Your task to perform on an android device: open app "LinkedIn" Image 0: 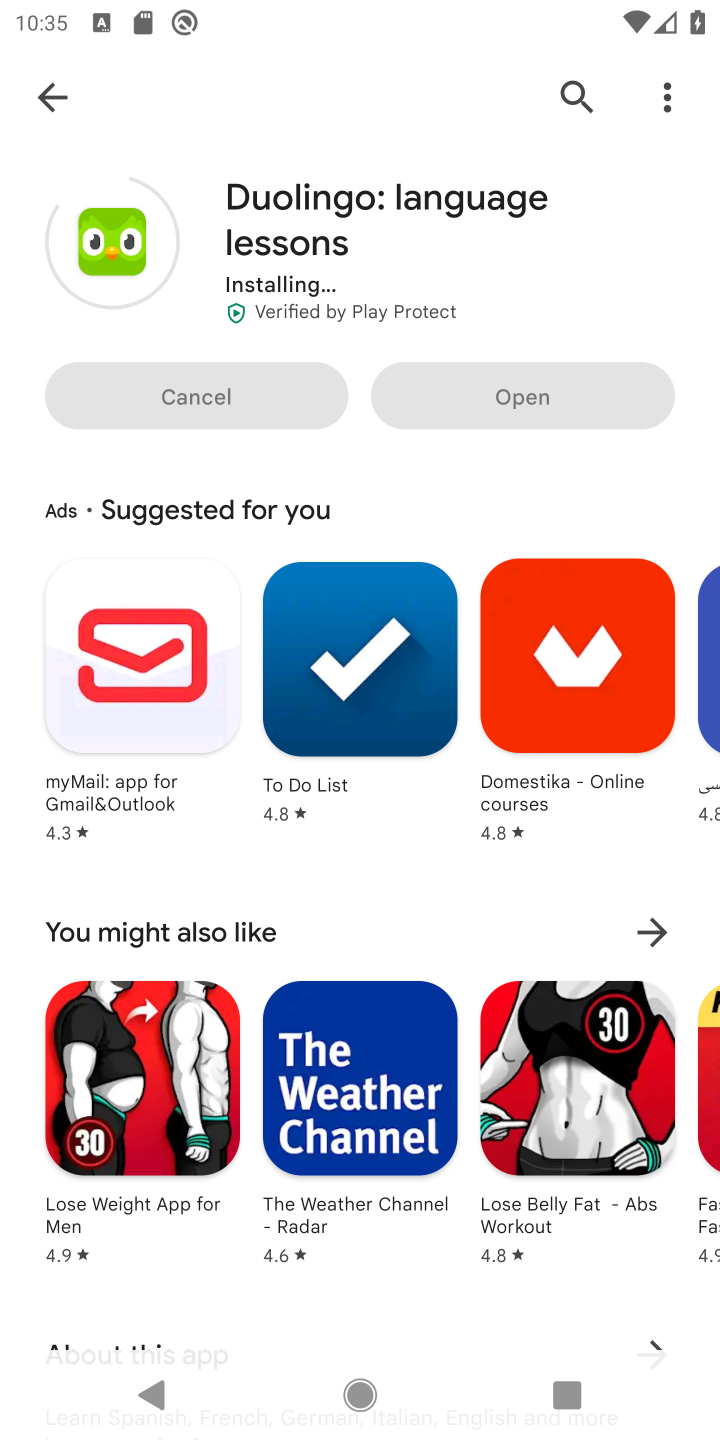
Step 0: press home button
Your task to perform on an android device: open app "LinkedIn" Image 1: 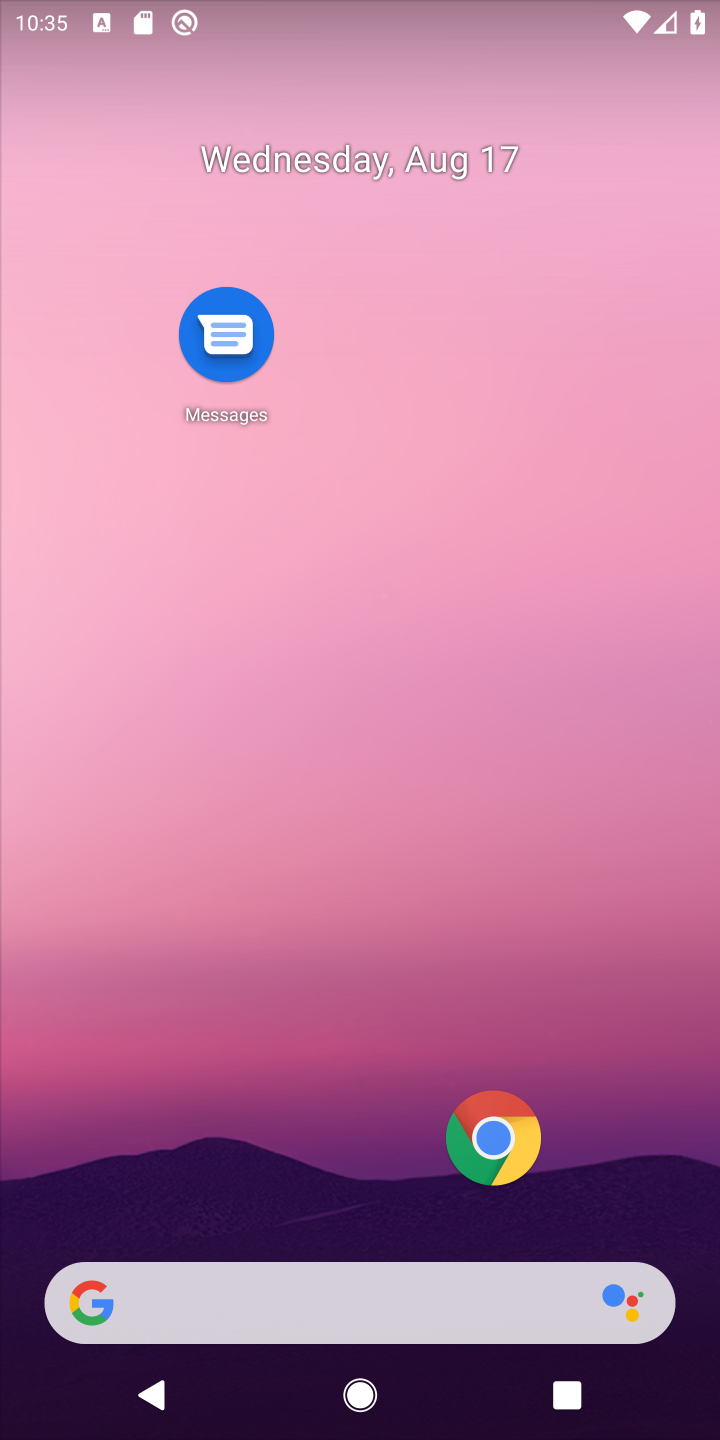
Step 1: drag from (270, 1270) to (155, 396)
Your task to perform on an android device: open app "LinkedIn" Image 2: 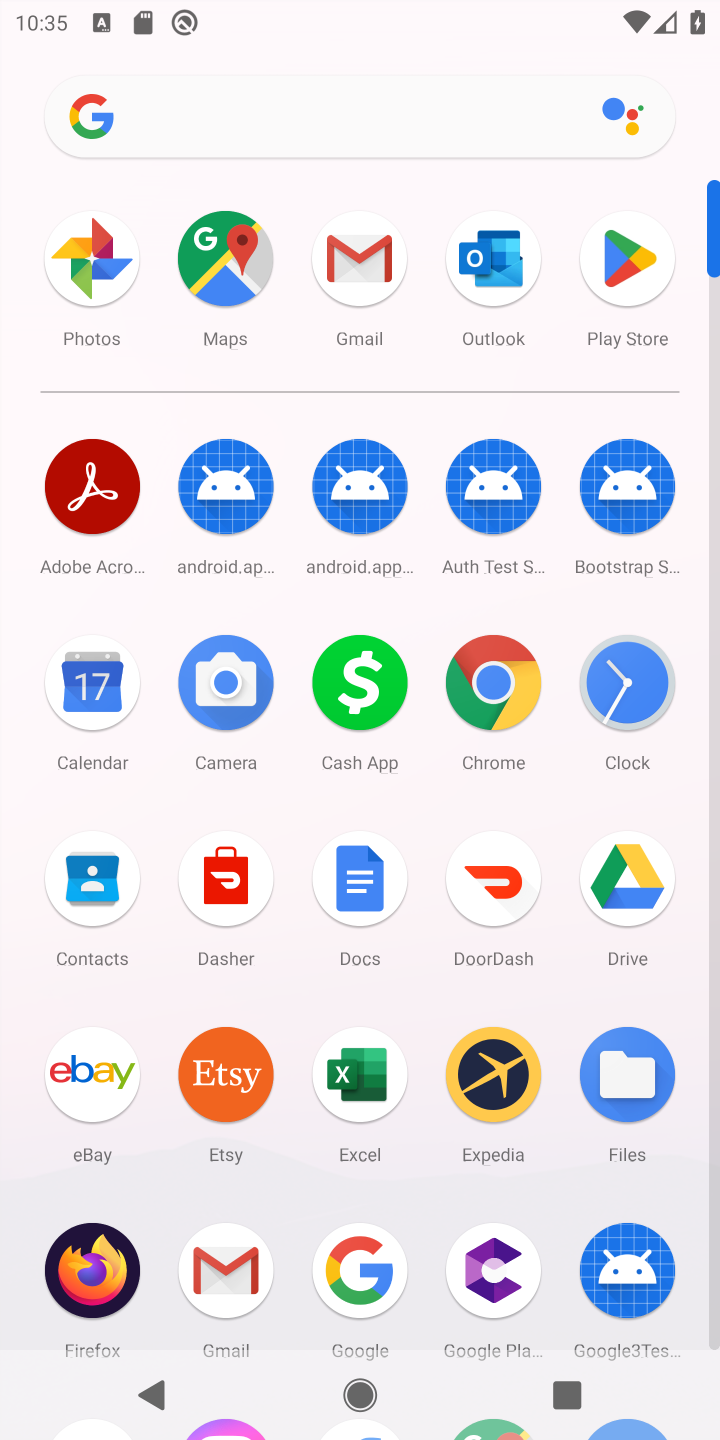
Step 2: click (616, 253)
Your task to perform on an android device: open app "LinkedIn" Image 3: 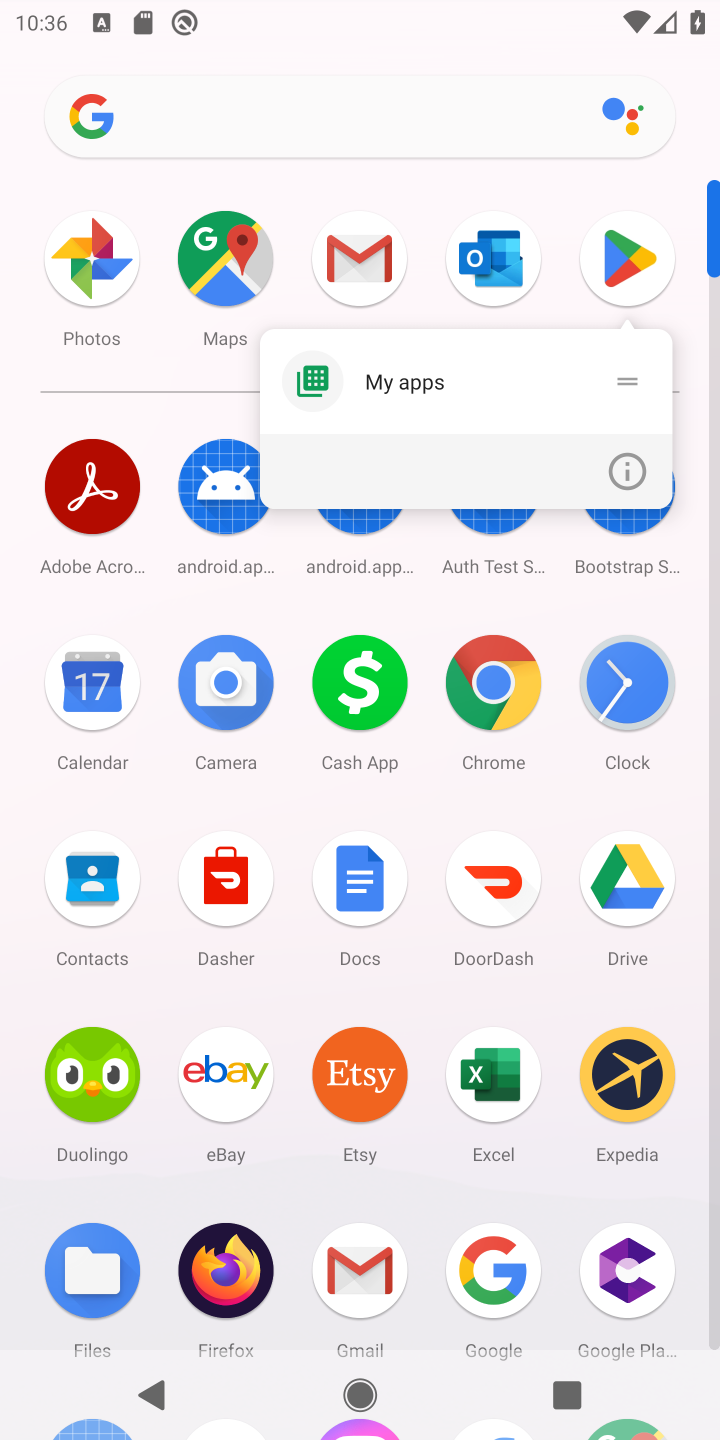
Step 3: click (630, 262)
Your task to perform on an android device: open app "LinkedIn" Image 4: 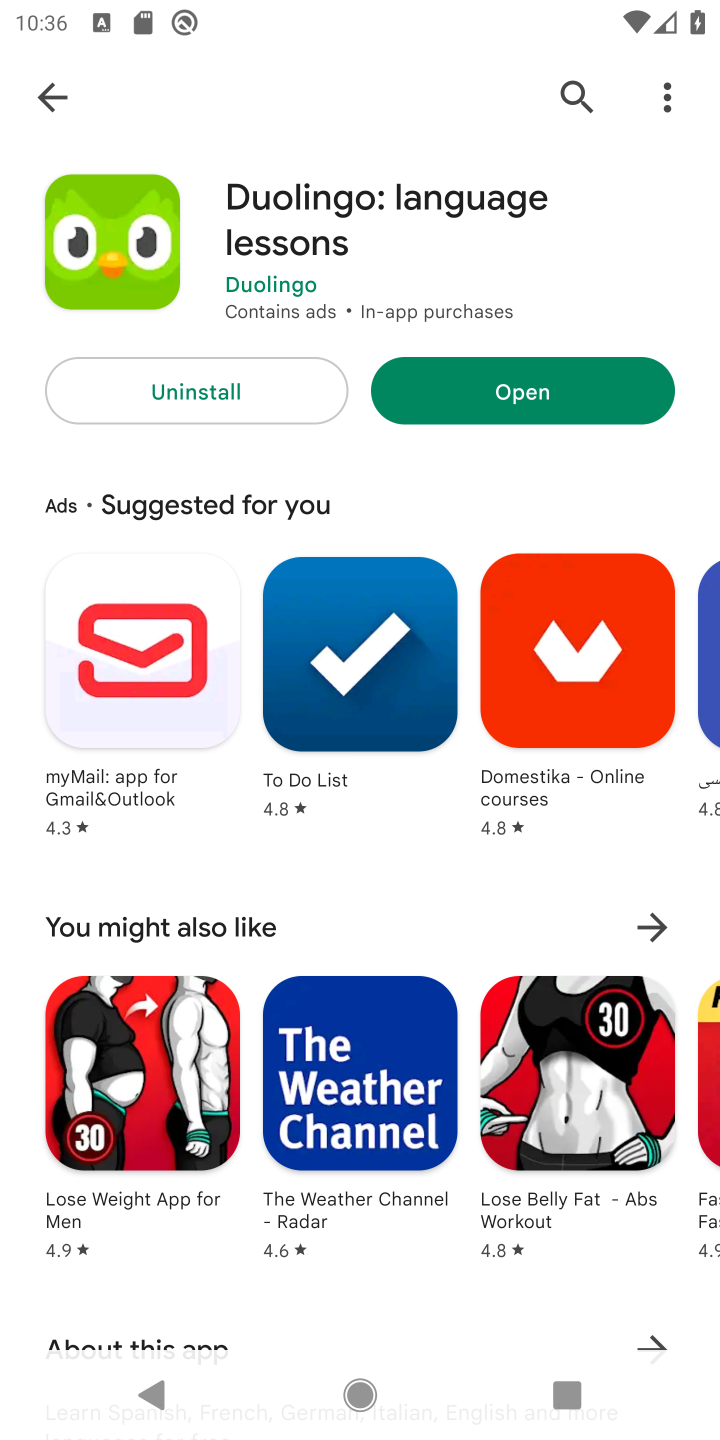
Step 4: click (46, 82)
Your task to perform on an android device: open app "LinkedIn" Image 5: 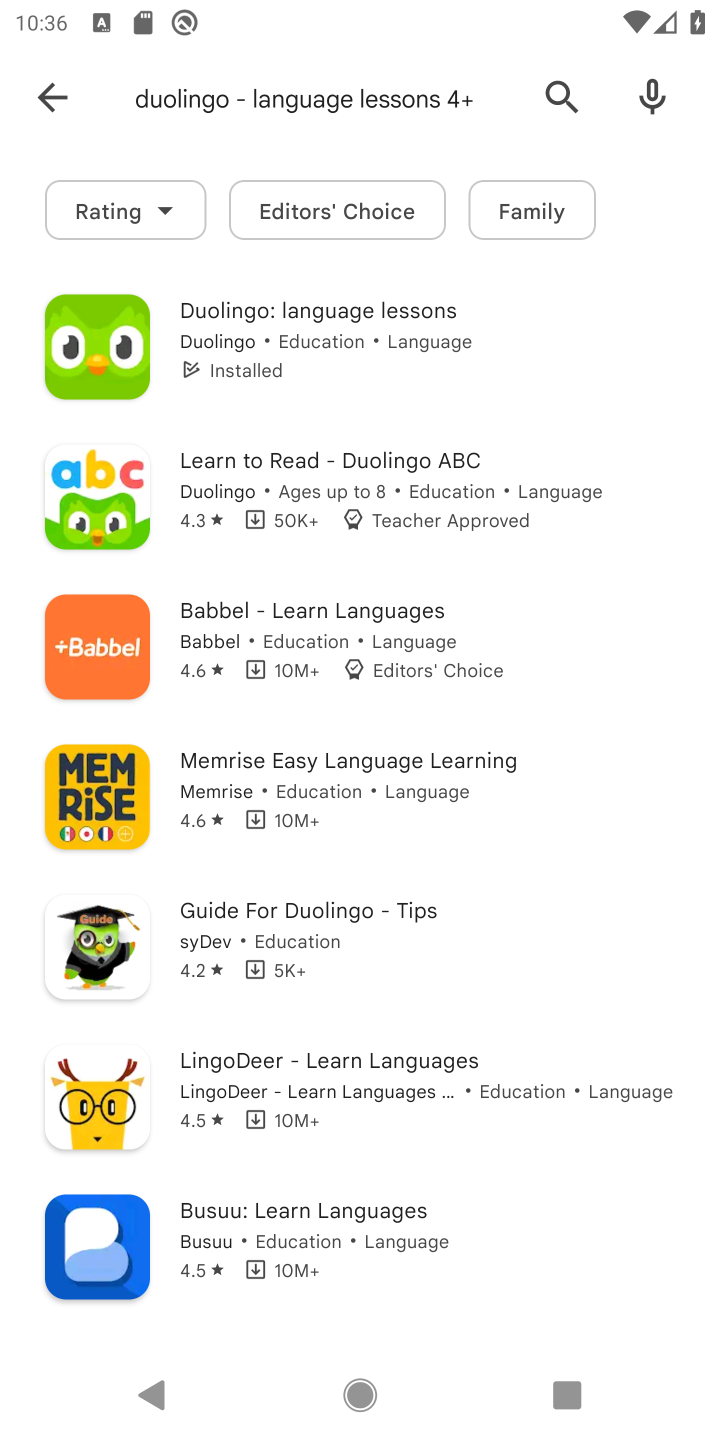
Step 5: click (67, 89)
Your task to perform on an android device: open app "LinkedIn" Image 6: 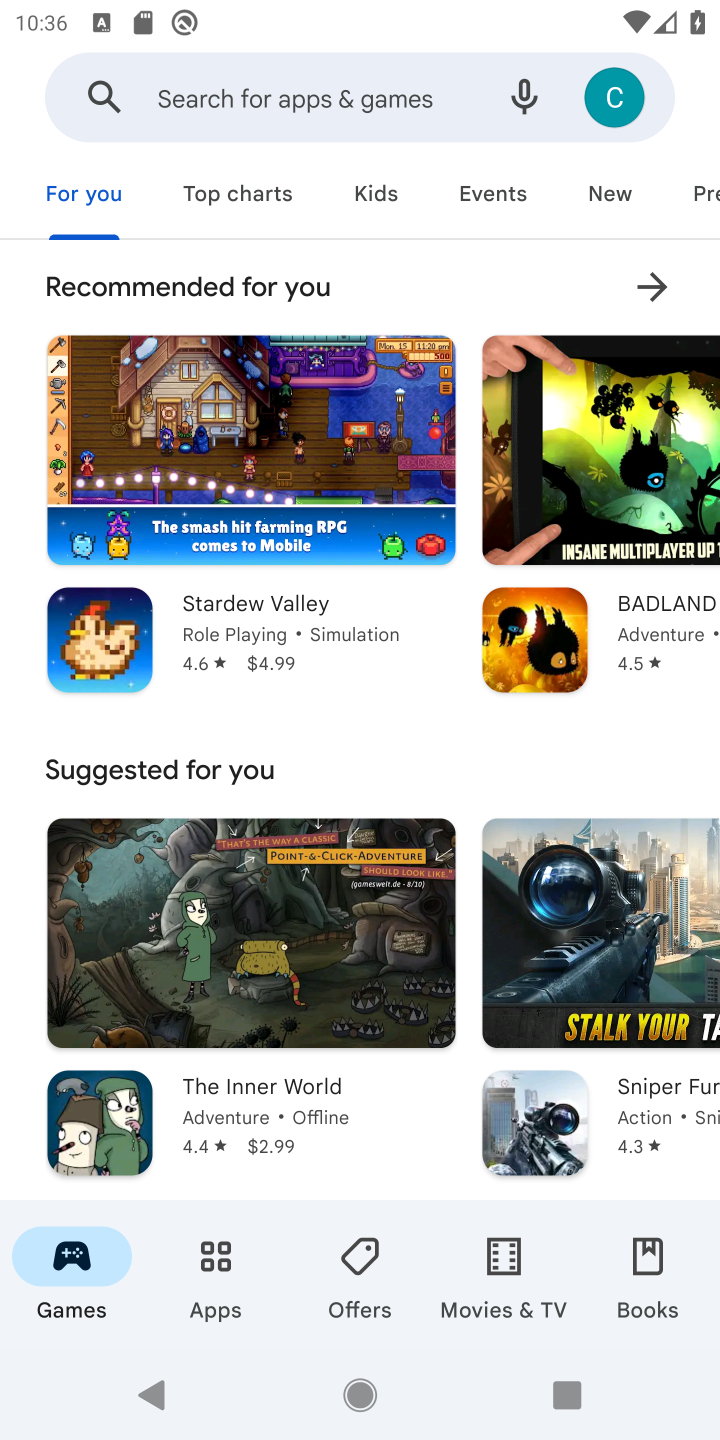
Step 6: click (374, 87)
Your task to perform on an android device: open app "LinkedIn" Image 7: 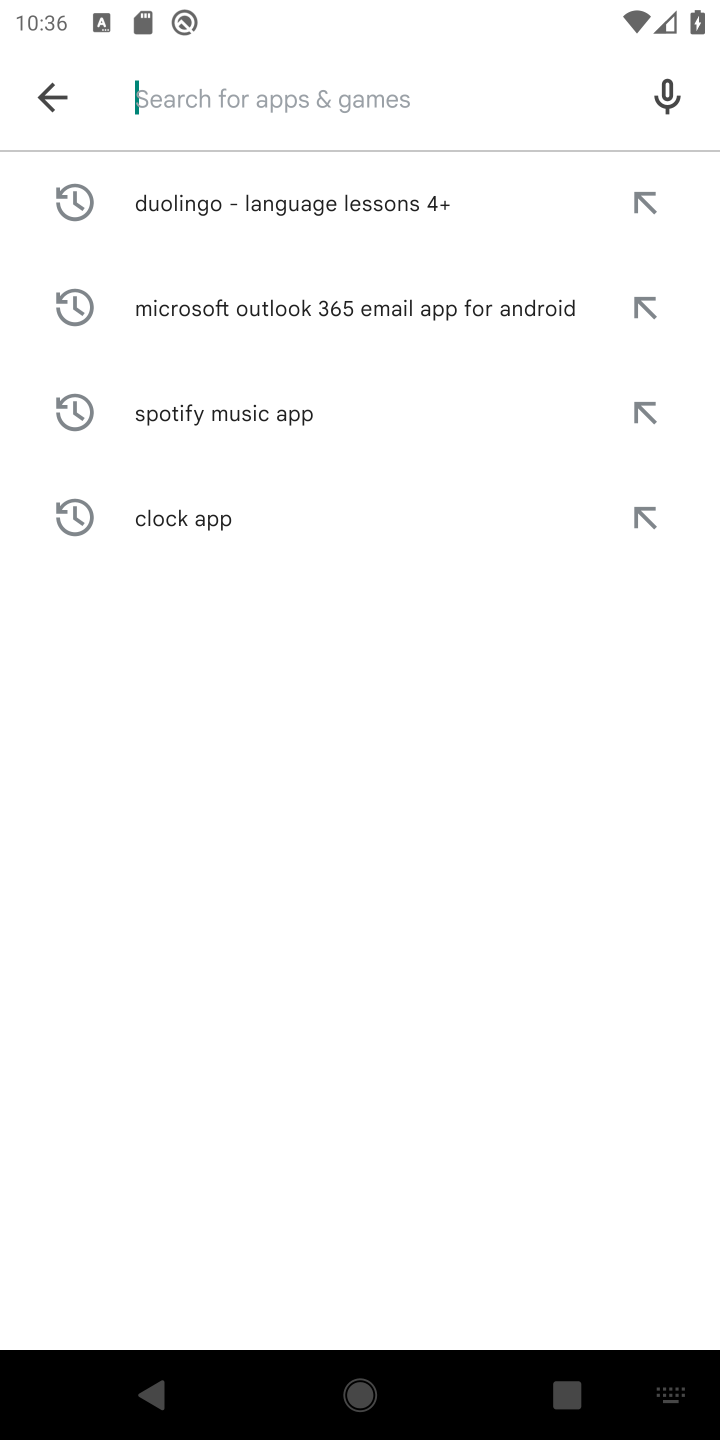
Step 7: type "LinkedIn "
Your task to perform on an android device: open app "LinkedIn" Image 8: 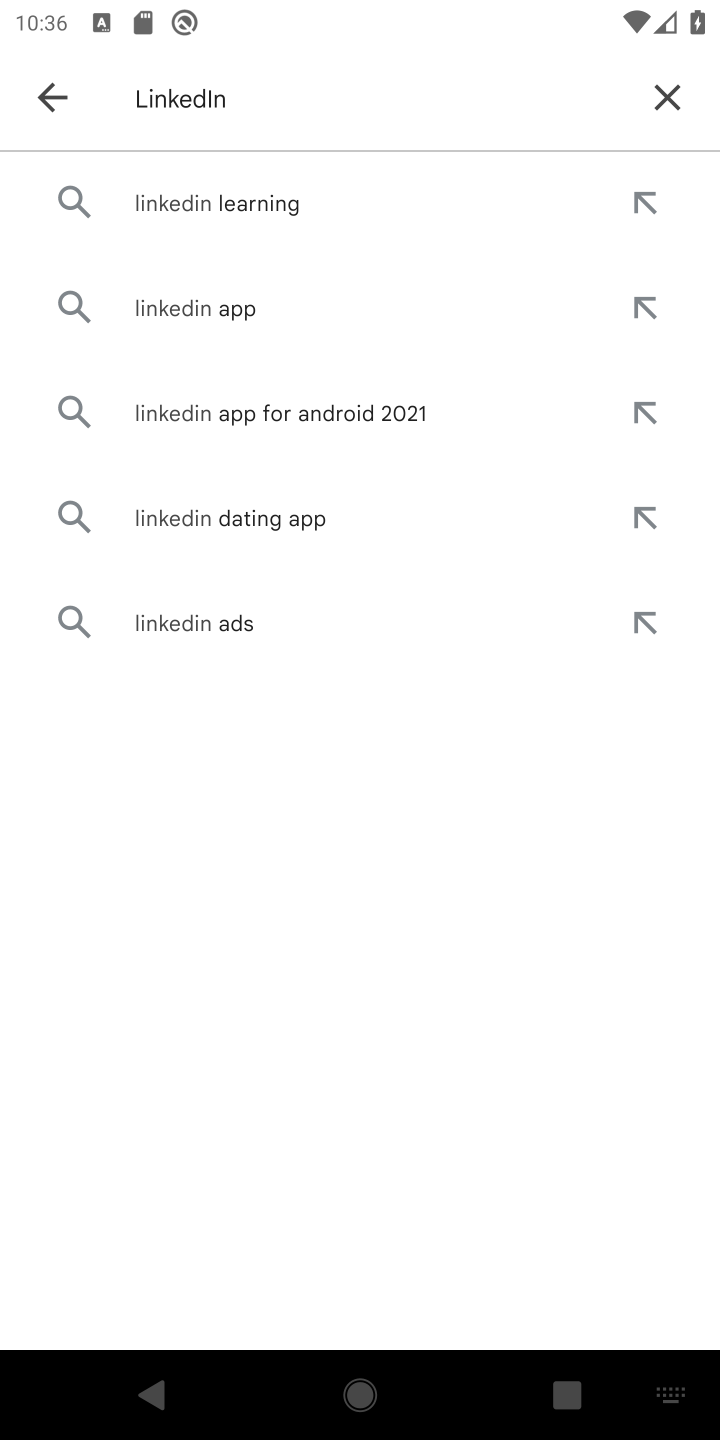
Step 8: click (254, 290)
Your task to perform on an android device: open app "LinkedIn" Image 9: 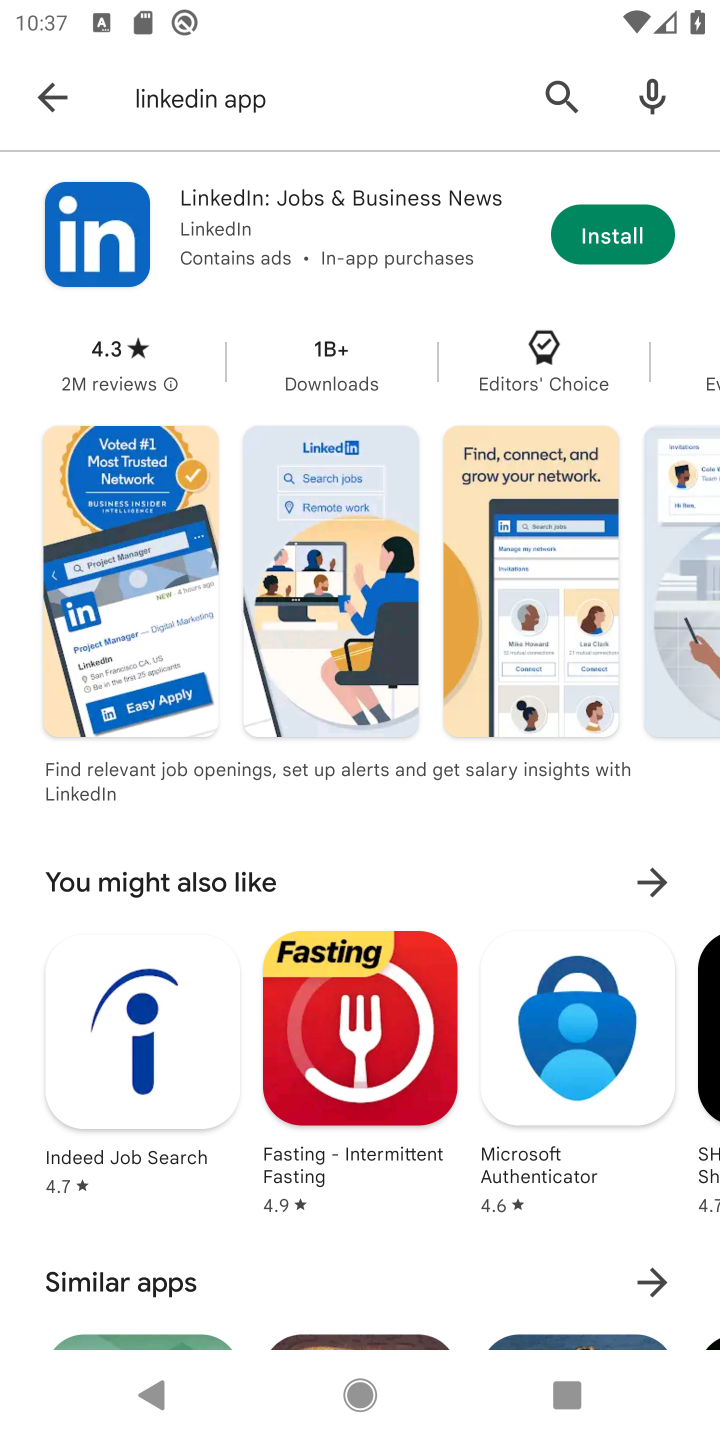
Step 9: click (621, 238)
Your task to perform on an android device: open app "LinkedIn" Image 10: 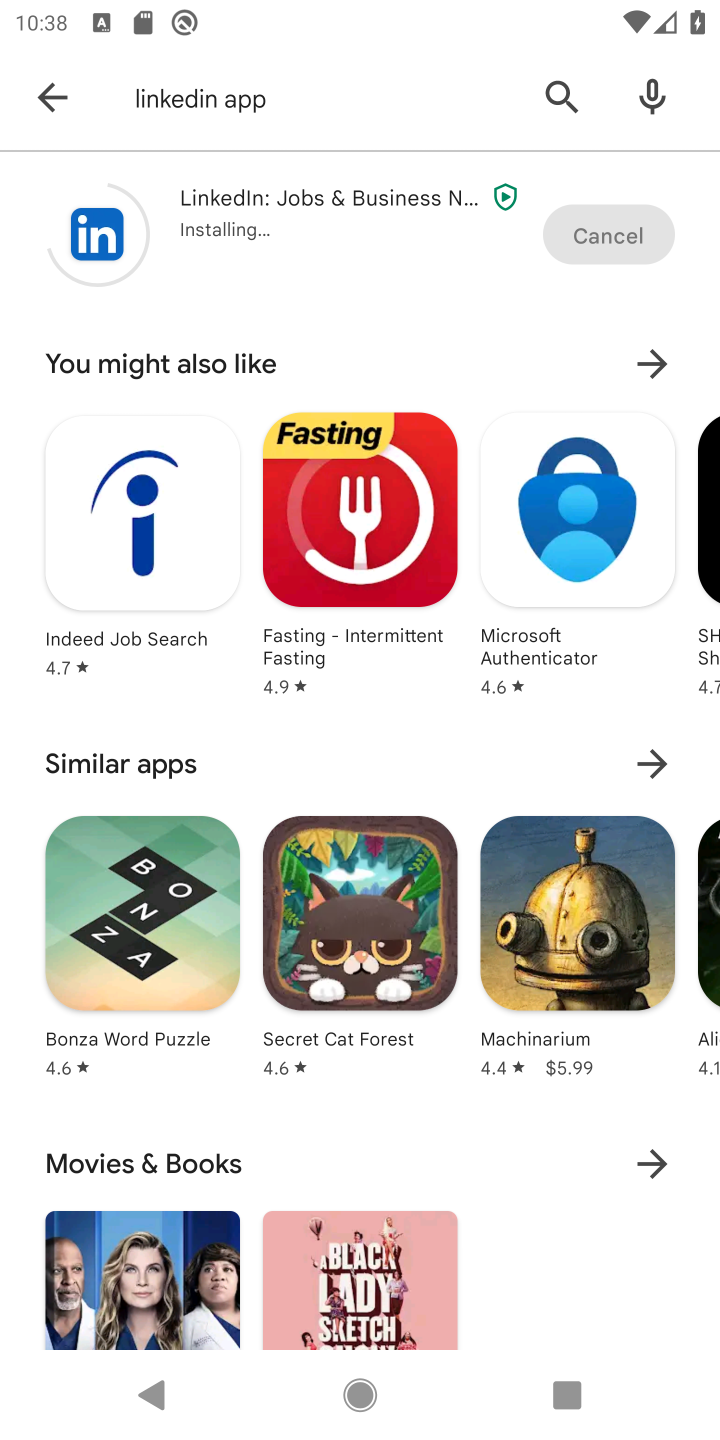
Step 10: task complete